Your task to perform on an android device: Open the Play Movies app and select the watchlist tab. Image 0: 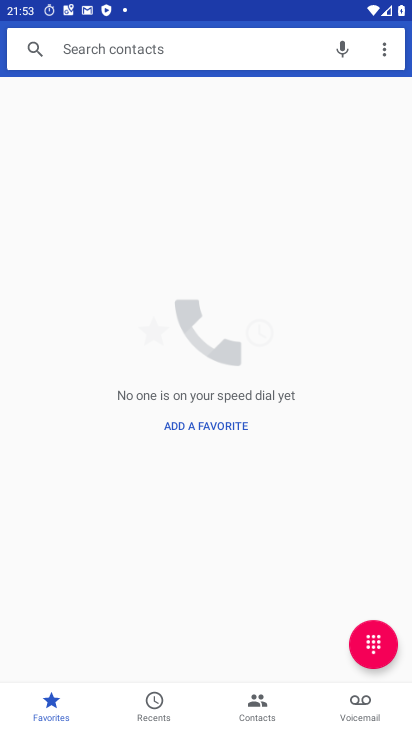
Step 0: press home button
Your task to perform on an android device: Open the Play Movies app and select the watchlist tab. Image 1: 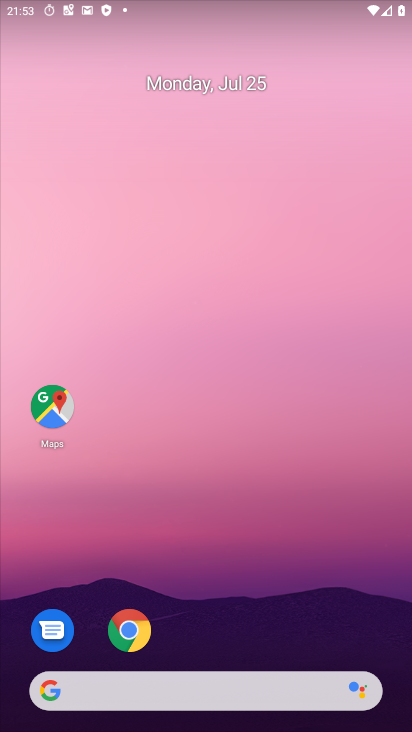
Step 1: drag from (261, 611) to (264, 55)
Your task to perform on an android device: Open the Play Movies app and select the watchlist tab. Image 2: 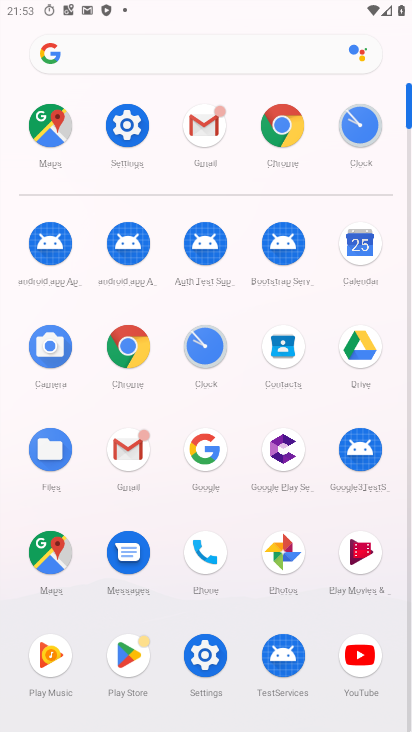
Step 2: click (362, 559)
Your task to perform on an android device: Open the Play Movies app and select the watchlist tab. Image 3: 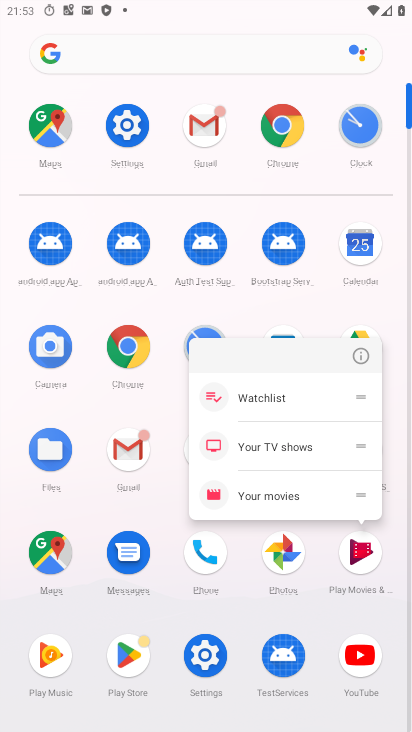
Step 3: click (362, 559)
Your task to perform on an android device: Open the Play Movies app and select the watchlist tab. Image 4: 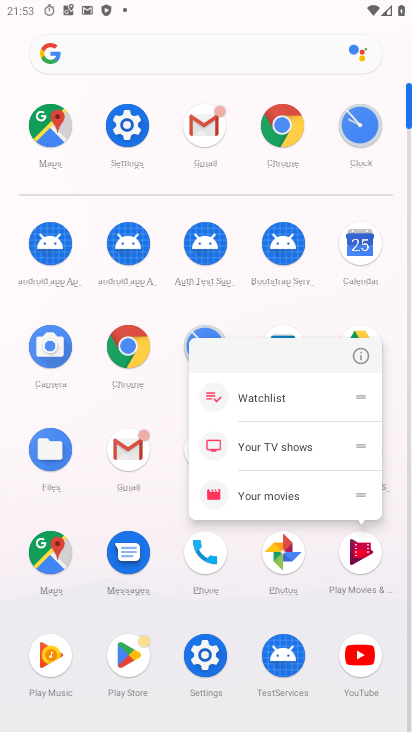
Step 4: click (362, 559)
Your task to perform on an android device: Open the Play Movies app and select the watchlist tab. Image 5: 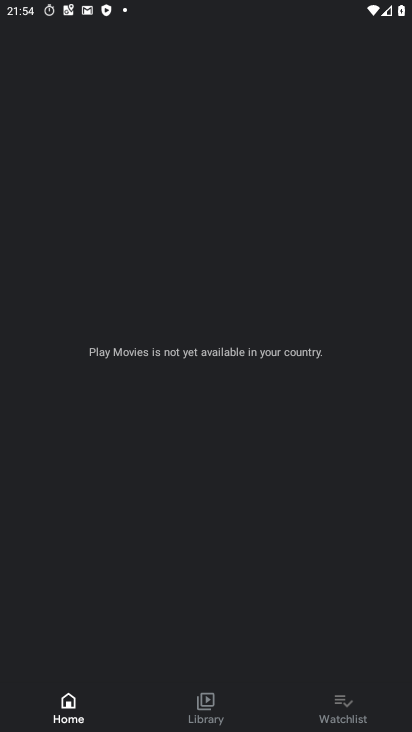
Step 5: click (342, 714)
Your task to perform on an android device: Open the Play Movies app and select the watchlist tab. Image 6: 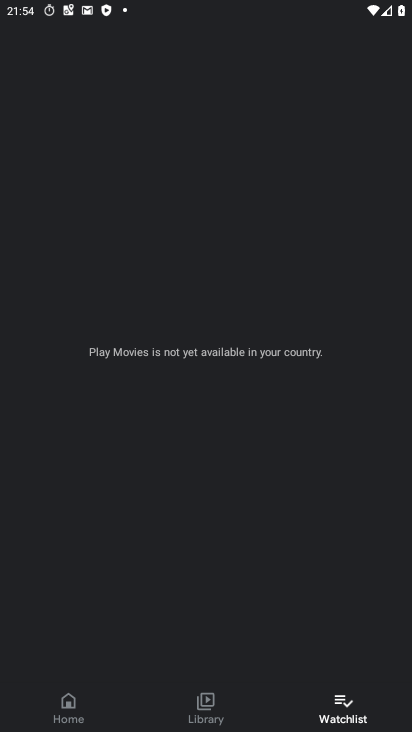
Step 6: task complete